Your task to perform on an android device: turn on the 12-hour format for clock Image 0: 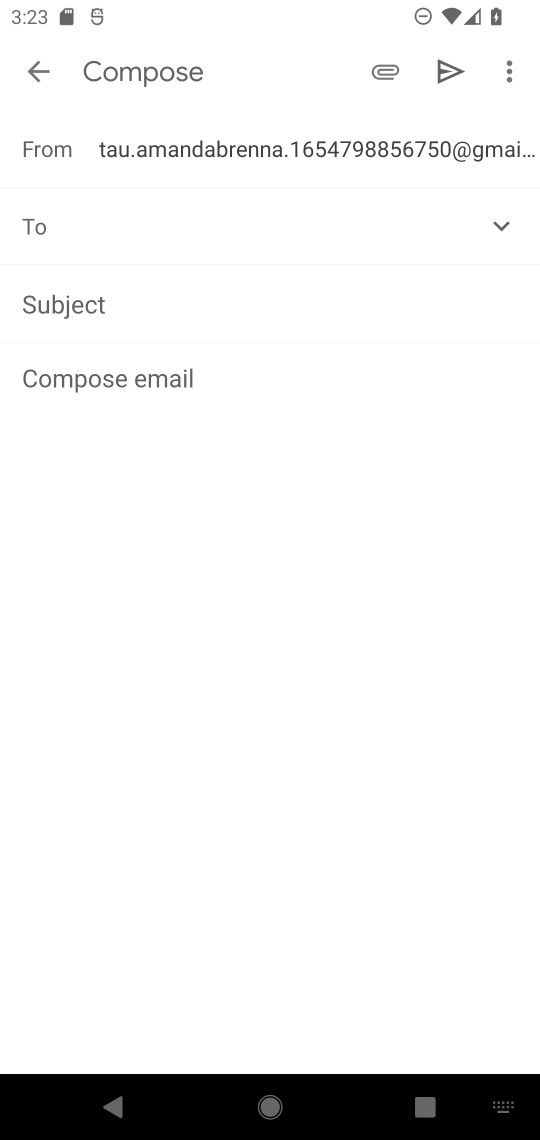
Step 0: task complete